Your task to perform on an android device: turn off sleep mode Image 0: 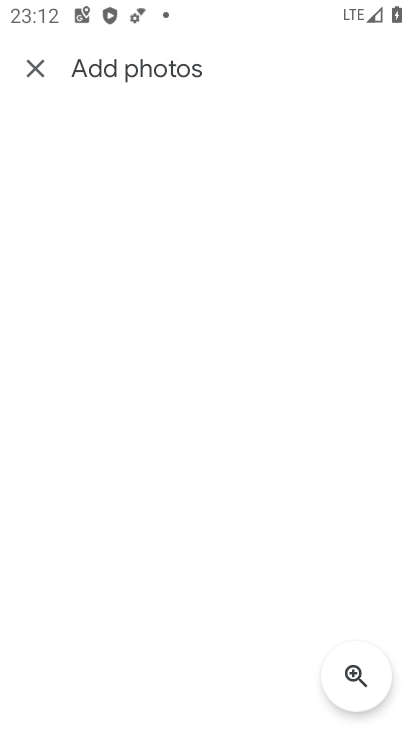
Step 0: press home button
Your task to perform on an android device: turn off sleep mode Image 1: 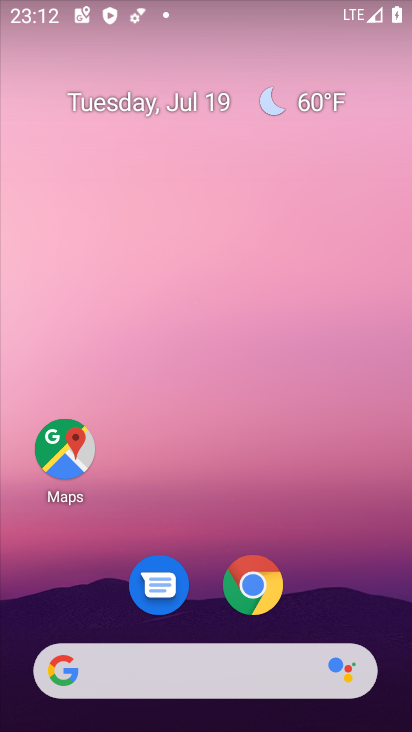
Step 1: drag from (351, 449) to (333, 47)
Your task to perform on an android device: turn off sleep mode Image 2: 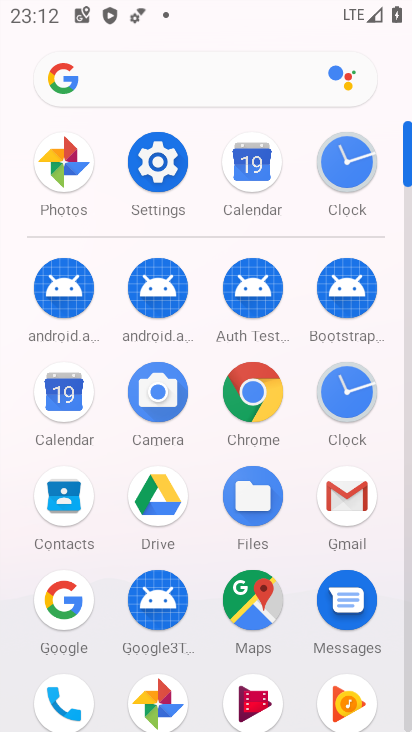
Step 2: click (178, 160)
Your task to perform on an android device: turn off sleep mode Image 3: 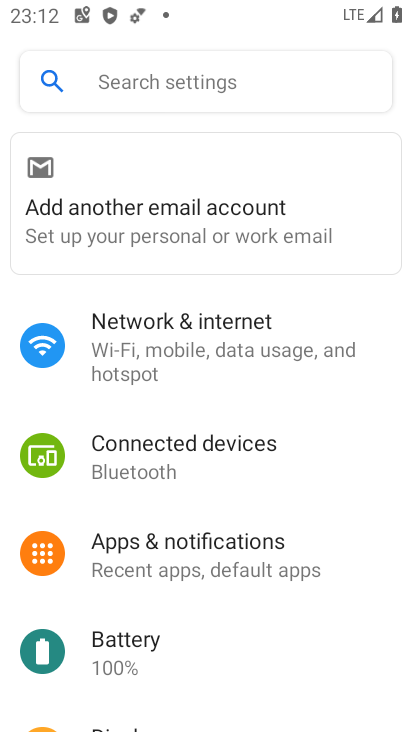
Step 3: drag from (237, 448) to (242, 169)
Your task to perform on an android device: turn off sleep mode Image 4: 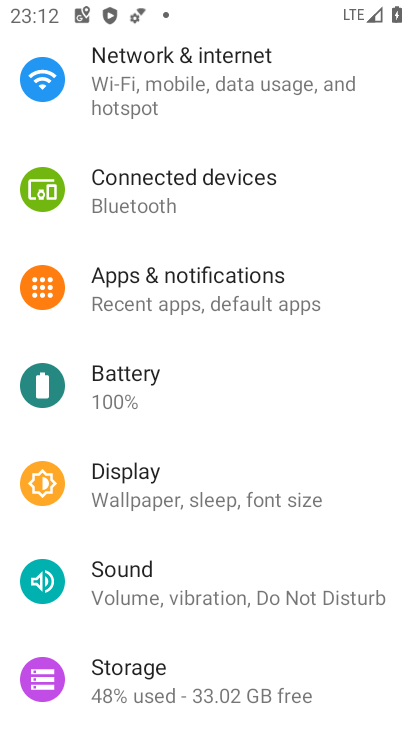
Step 4: click (229, 496)
Your task to perform on an android device: turn off sleep mode Image 5: 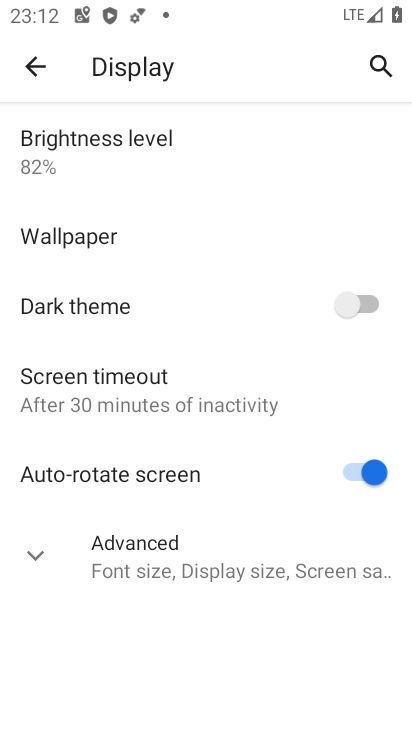
Step 5: click (36, 554)
Your task to perform on an android device: turn off sleep mode Image 6: 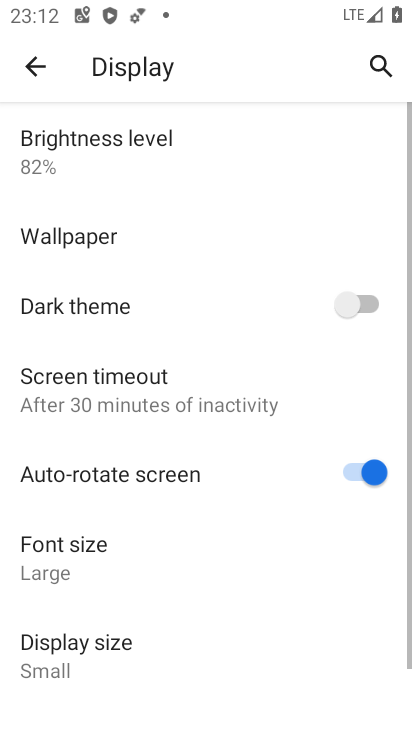
Step 6: task complete